Your task to perform on an android device: create a new album in the google photos Image 0: 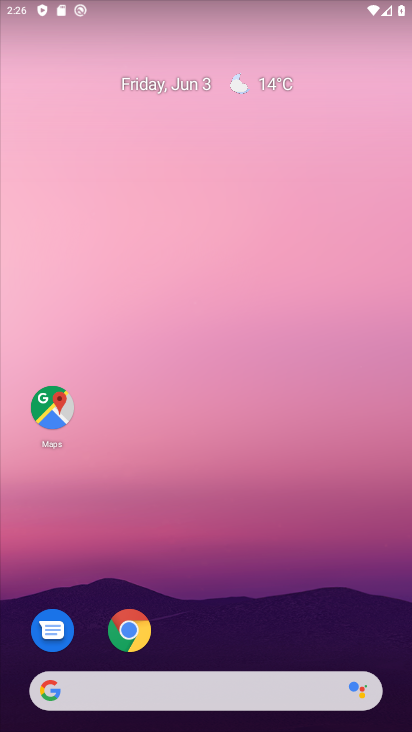
Step 0: drag from (245, 634) to (201, 213)
Your task to perform on an android device: create a new album in the google photos Image 1: 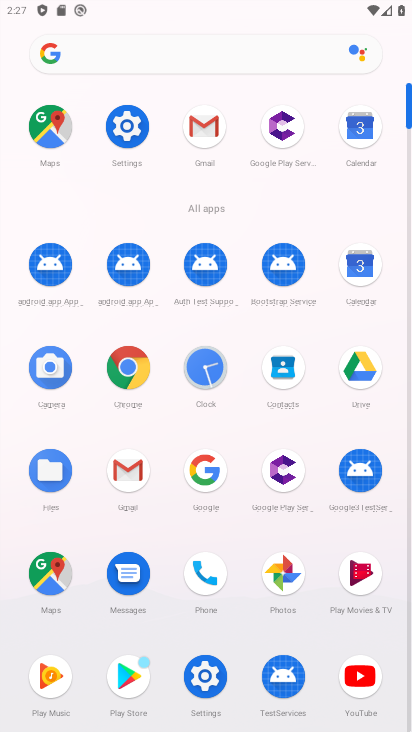
Step 1: click (287, 572)
Your task to perform on an android device: create a new album in the google photos Image 2: 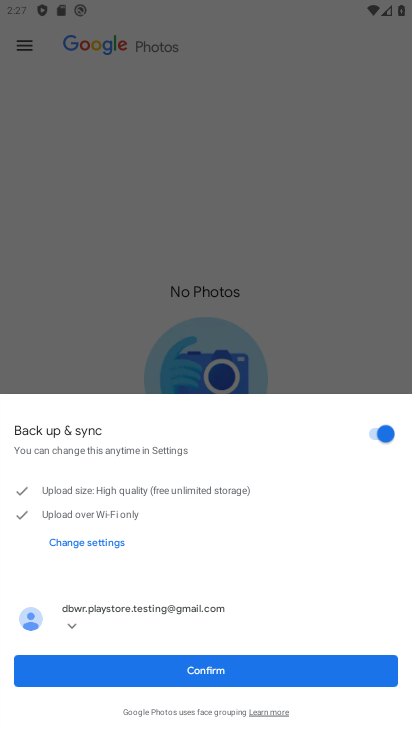
Step 2: click (220, 677)
Your task to perform on an android device: create a new album in the google photos Image 3: 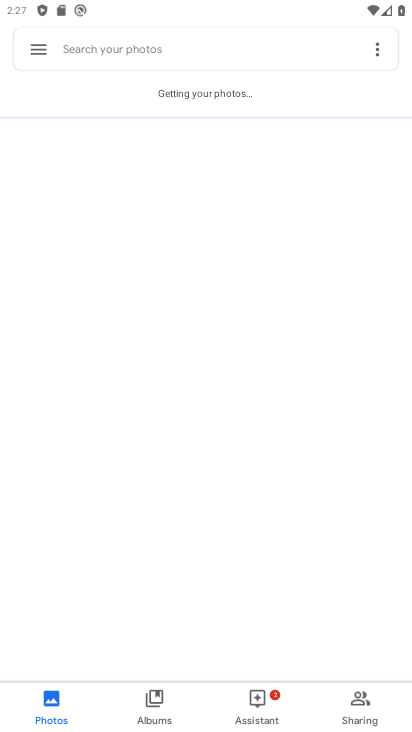
Step 3: click (261, 704)
Your task to perform on an android device: create a new album in the google photos Image 4: 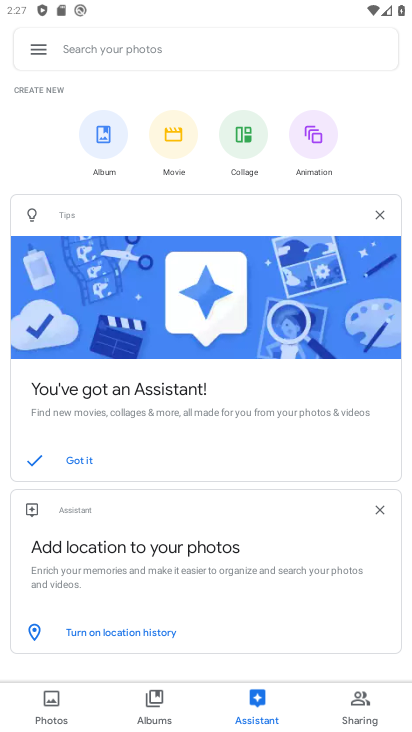
Step 4: click (91, 157)
Your task to perform on an android device: create a new album in the google photos Image 5: 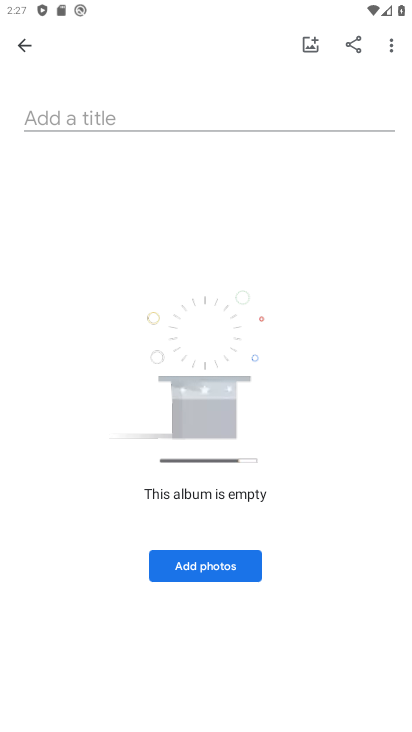
Step 5: click (138, 112)
Your task to perform on an android device: create a new album in the google photos Image 6: 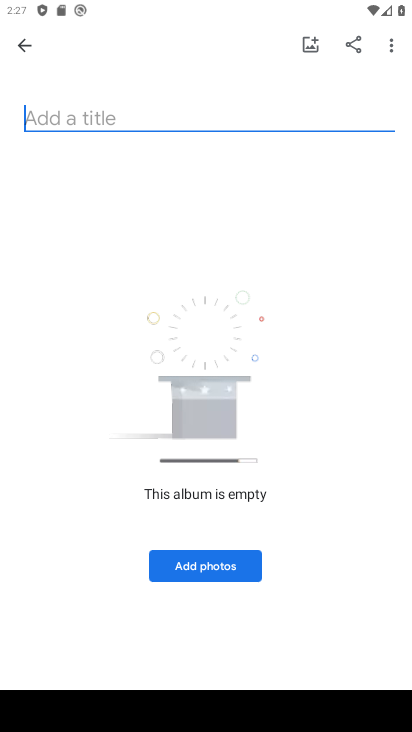
Step 6: type "jdjdjdjd"
Your task to perform on an android device: create a new album in the google photos Image 7: 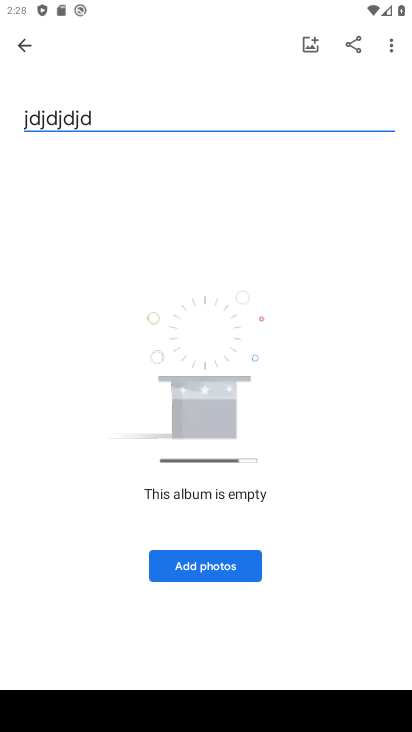
Step 7: click (199, 567)
Your task to perform on an android device: create a new album in the google photos Image 8: 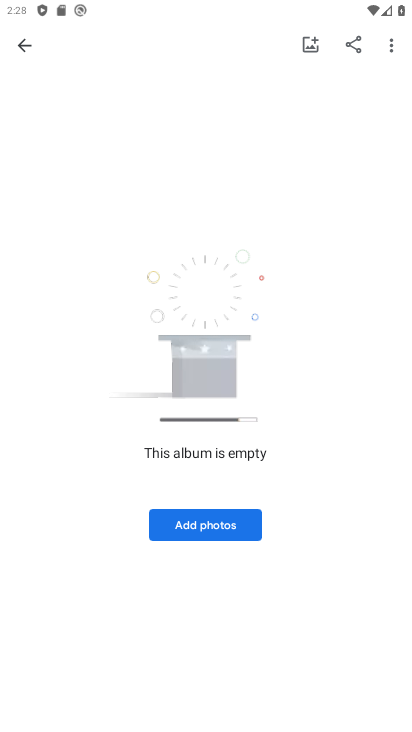
Step 8: click (211, 517)
Your task to perform on an android device: create a new album in the google photos Image 9: 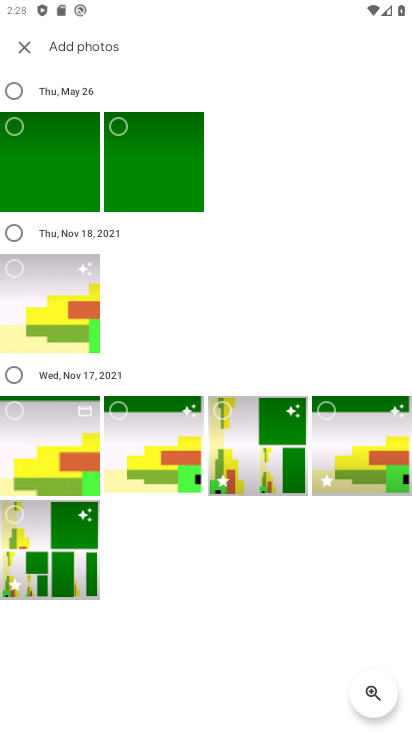
Step 9: click (325, 476)
Your task to perform on an android device: create a new album in the google photos Image 10: 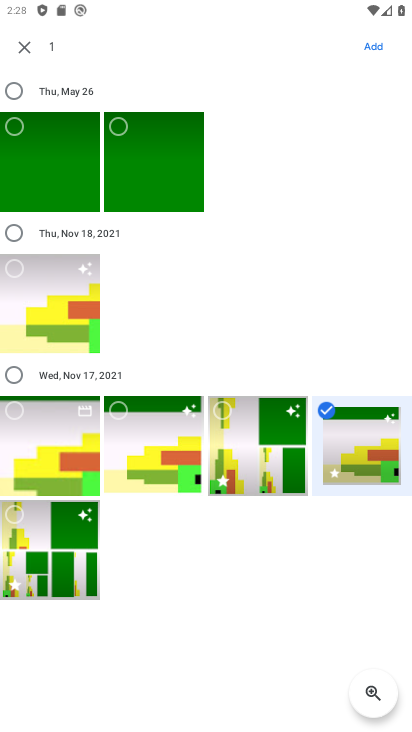
Step 10: click (375, 42)
Your task to perform on an android device: create a new album in the google photos Image 11: 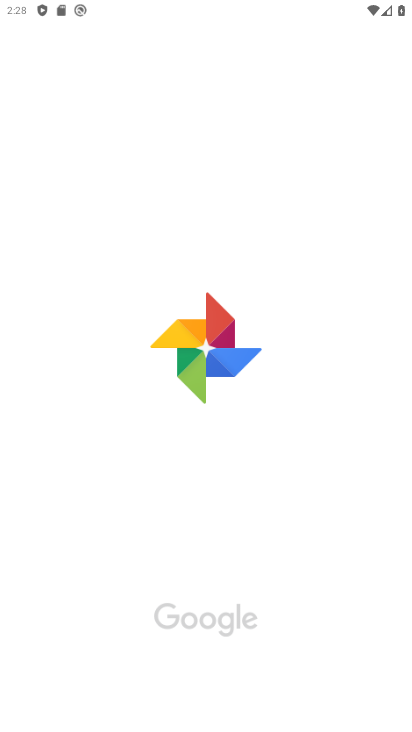
Step 11: task complete